Your task to perform on an android device: Open Google Chrome and click the shortcut for Amazon.com Image 0: 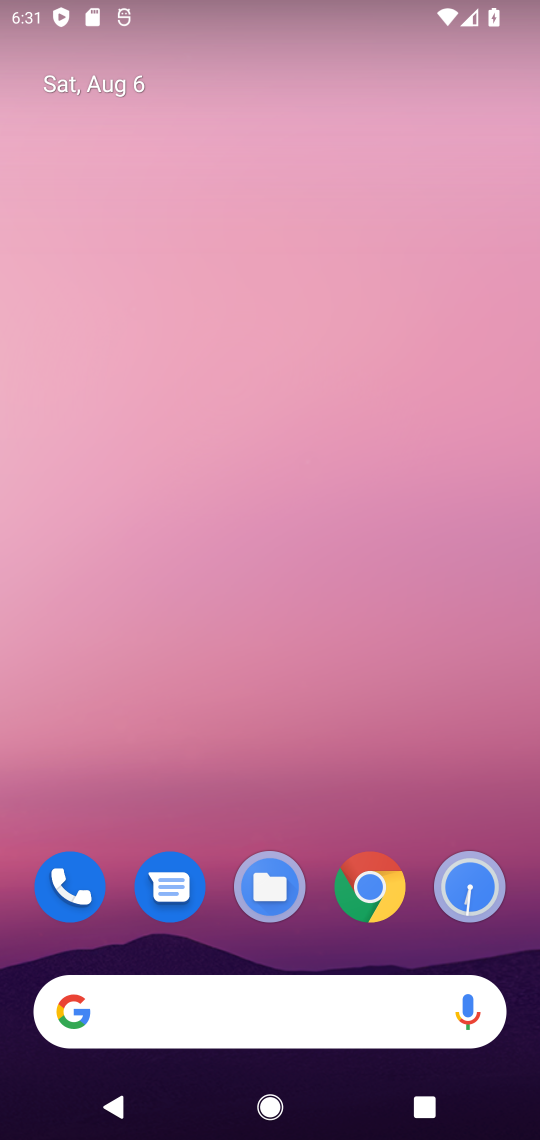
Step 0: drag from (312, 879) to (392, 402)
Your task to perform on an android device: Open Google Chrome and click the shortcut for Amazon.com Image 1: 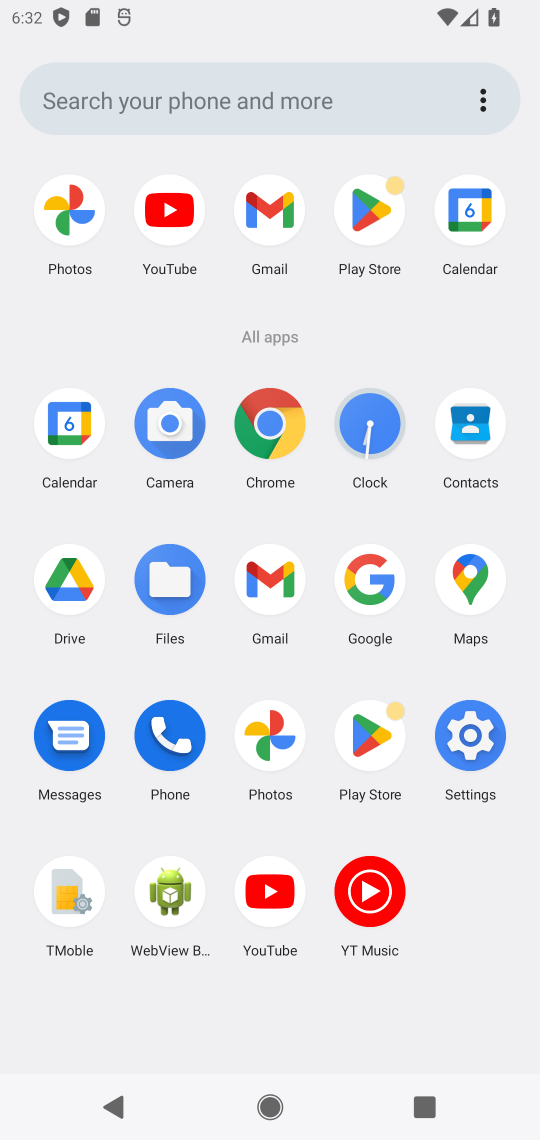
Step 1: click (266, 428)
Your task to perform on an android device: Open Google Chrome and click the shortcut for Amazon.com Image 2: 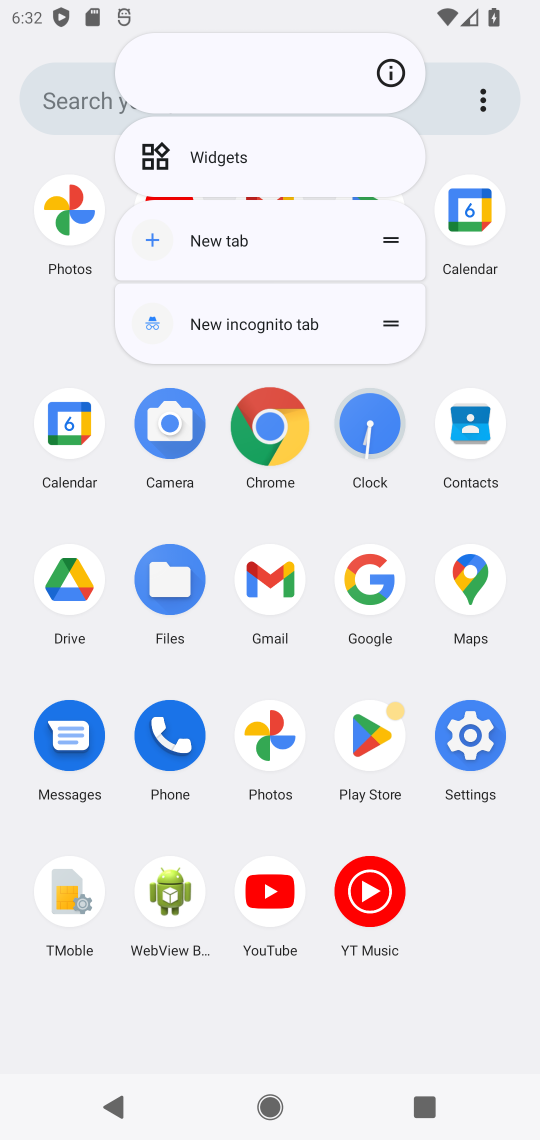
Step 2: click (272, 439)
Your task to perform on an android device: Open Google Chrome and click the shortcut for Amazon.com Image 3: 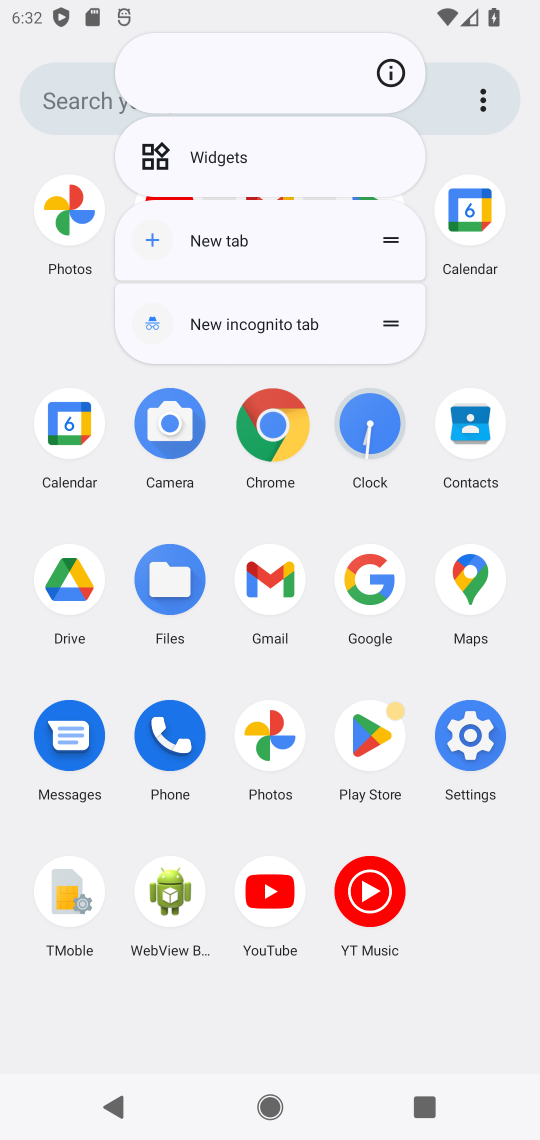
Step 3: click (264, 438)
Your task to perform on an android device: Open Google Chrome and click the shortcut for Amazon.com Image 4: 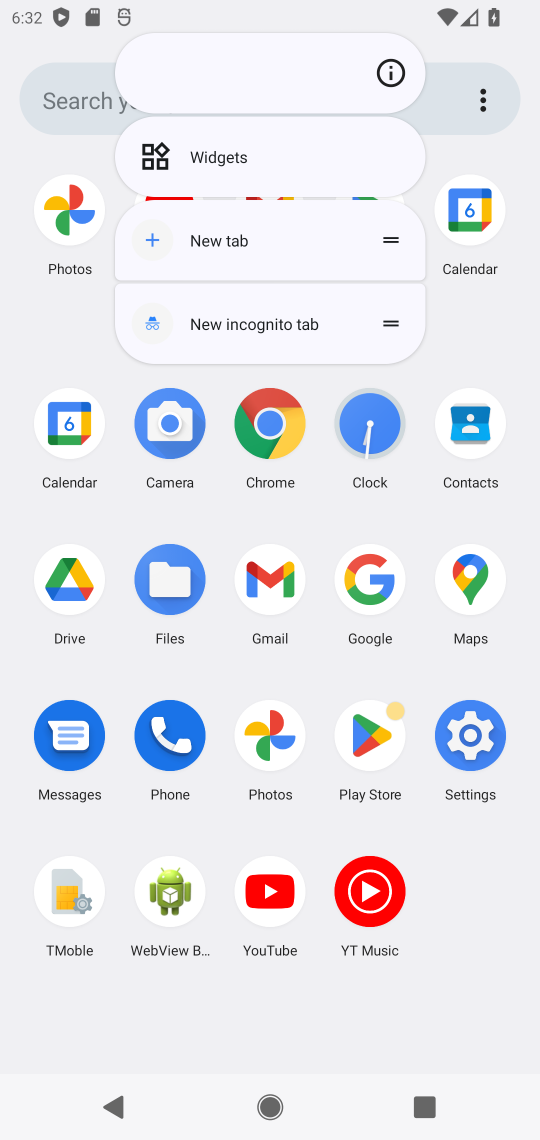
Step 4: click (265, 438)
Your task to perform on an android device: Open Google Chrome and click the shortcut for Amazon.com Image 5: 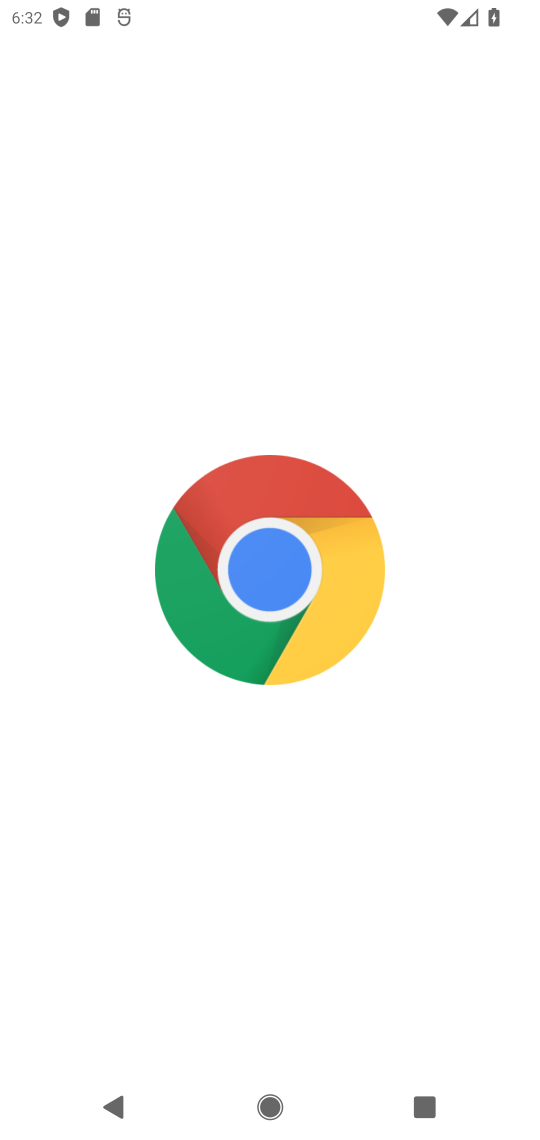
Step 5: click (279, 441)
Your task to perform on an android device: Open Google Chrome and click the shortcut for Amazon.com Image 6: 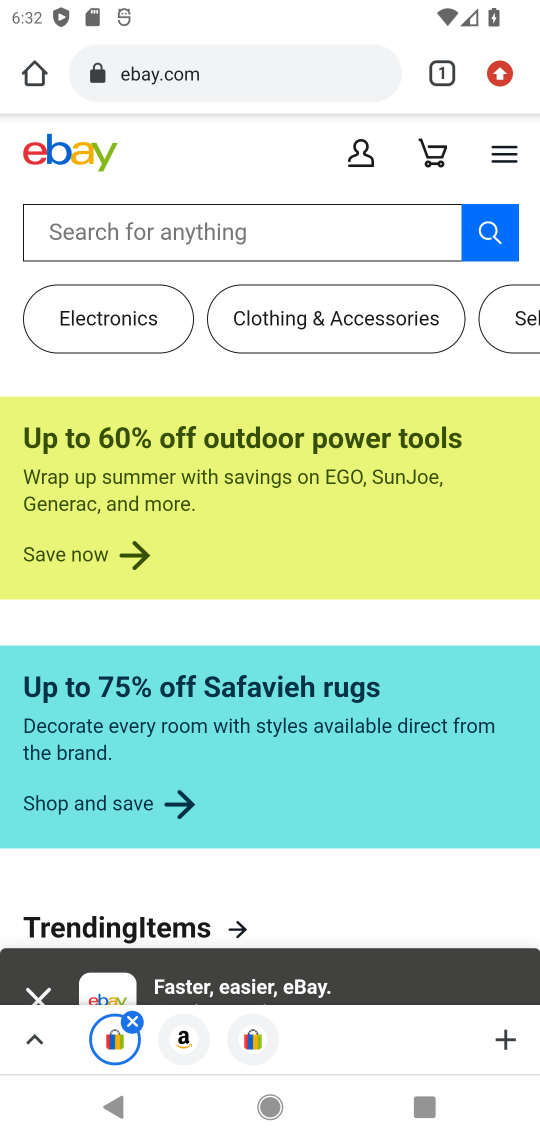
Step 6: drag from (488, 64) to (509, 809)
Your task to perform on an android device: Open Google Chrome and click the shortcut for Amazon.com Image 7: 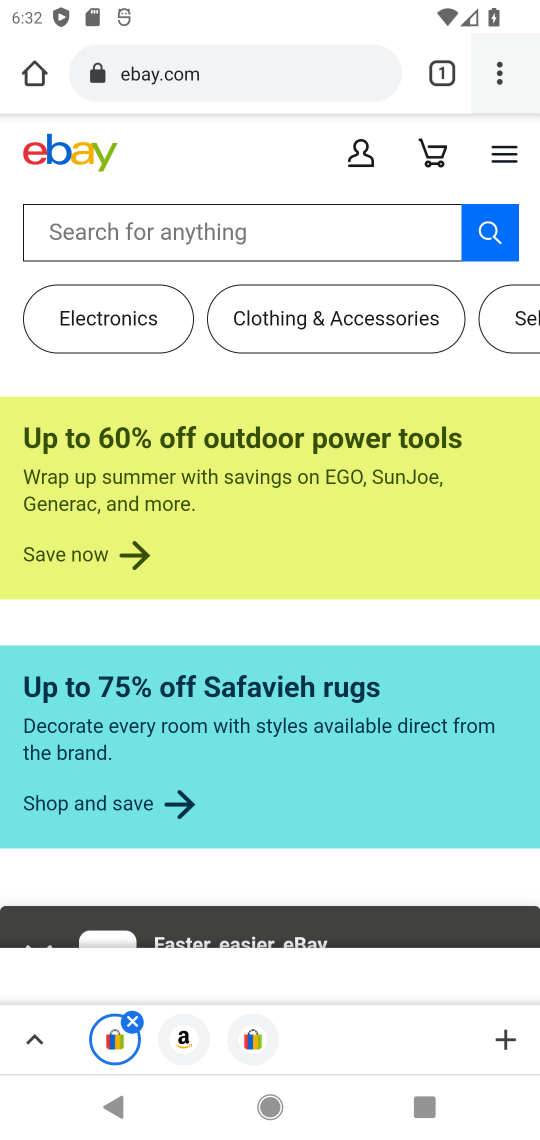
Step 7: drag from (500, 74) to (427, 637)
Your task to perform on an android device: Open Google Chrome and click the shortcut for Amazon.com Image 8: 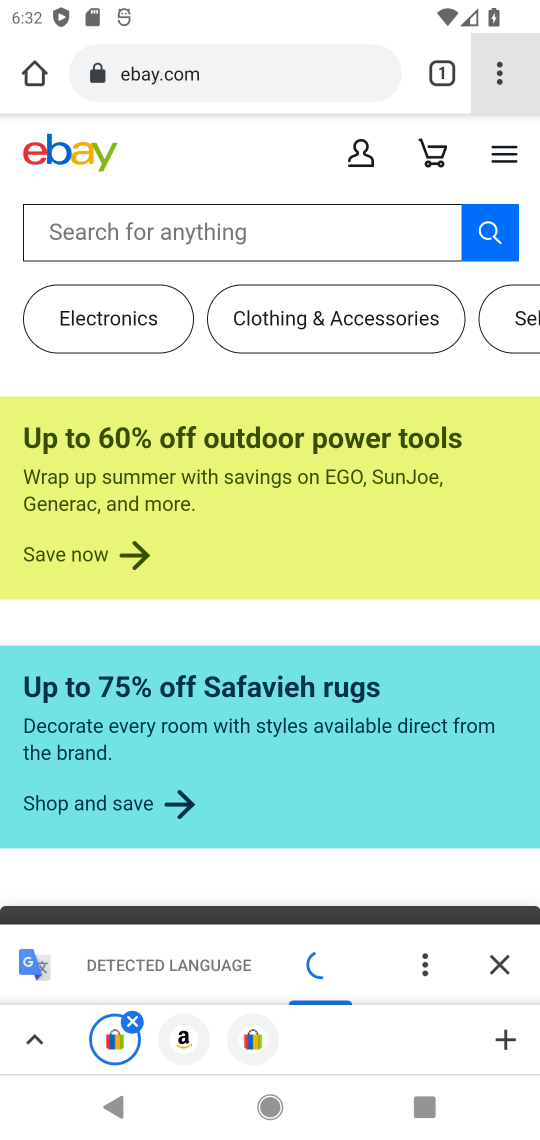
Step 8: click (494, 68)
Your task to perform on an android device: Open Google Chrome and click the shortcut for Amazon.com Image 9: 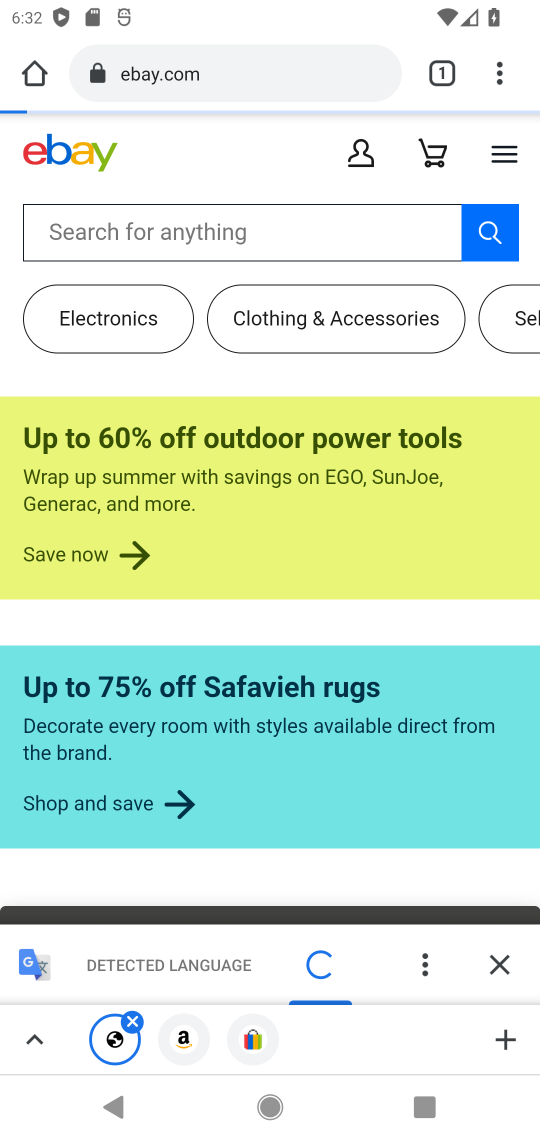
Step 9: click (503, 77)
Your task to perform on an android device: Open Google Chrome and click the shortcut for Amazon.com Image 10: 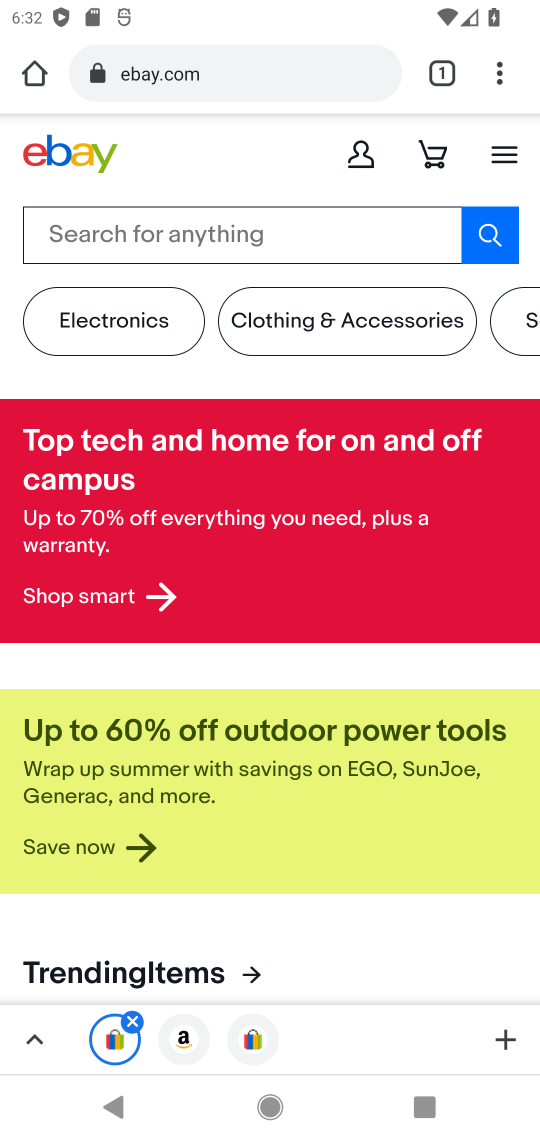
Step 10: drag from (483, 68) to (271, 122)
Your task to perform on an android device: Open Google Chrome and click the shortcut for Amazon.com Image 11: 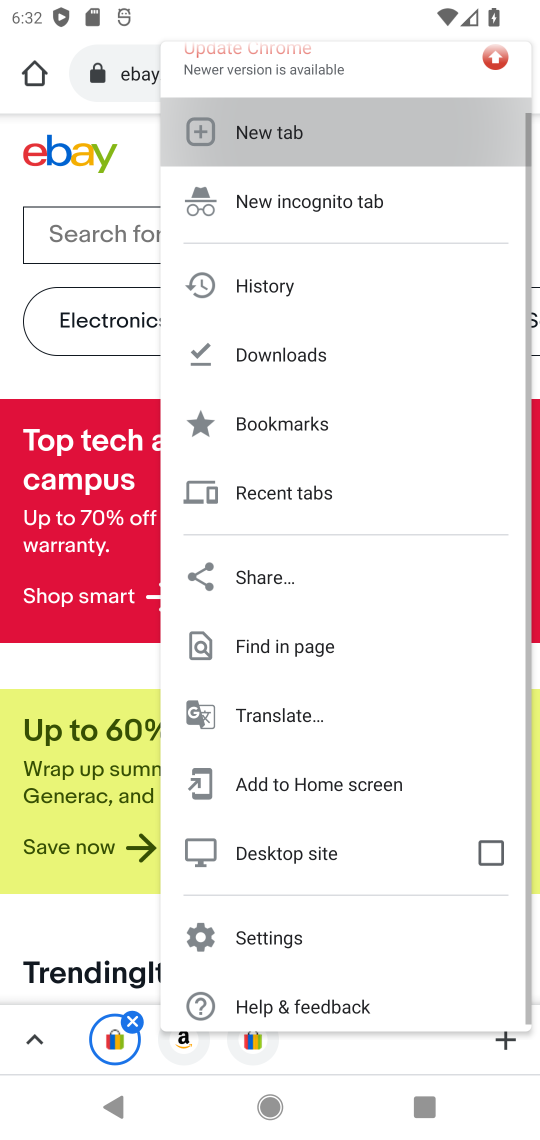
Step 11: click (271, 122)
Your task to perform on an android device: Open Google Chrome and click the shortcut for Amazon.com Image 12: 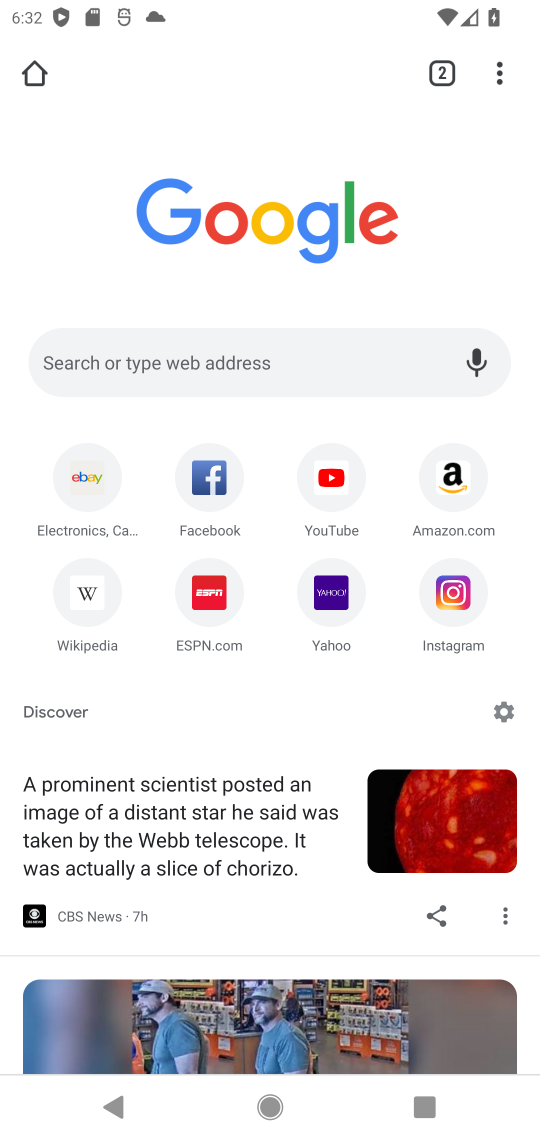
Step 12: click (450, 476)
Your task to perform on an android device: Open Google Chrome and click the shortcut for Amazon.com Image 13: 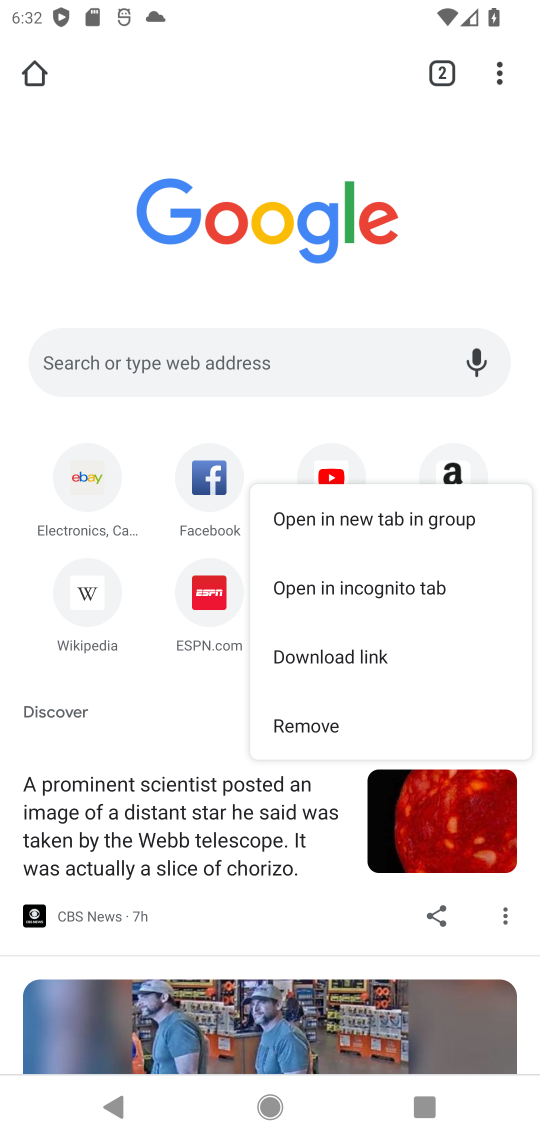
Step 13: click (450, 476)
Your task to perform on an android device: Open Google Chrome and click the shortcut for Amazon.com Image 14: 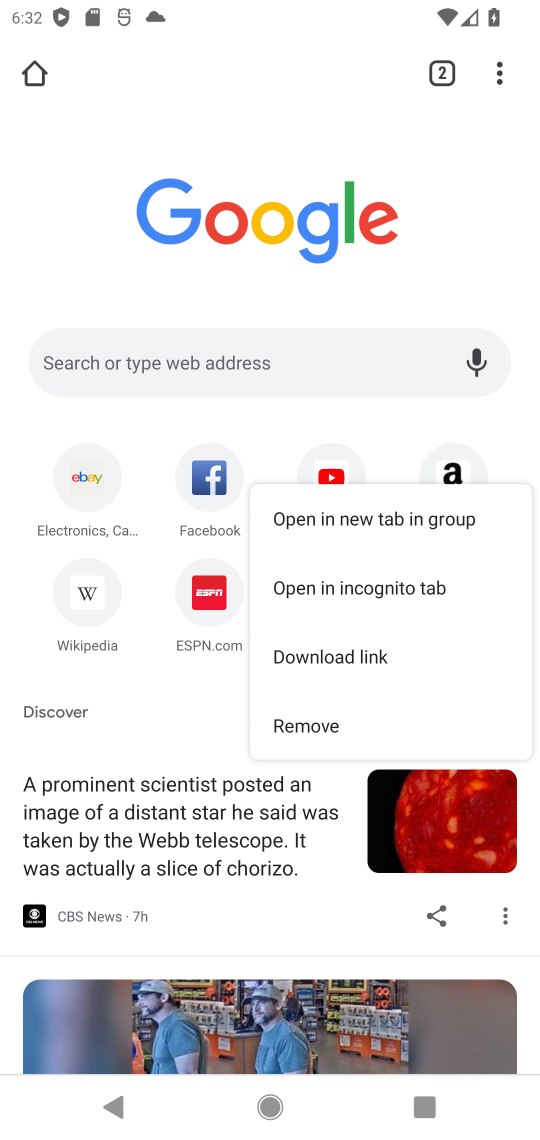
Step 14: click (452, 480)
Your task to perform on an android device: Open Google Chrome and click the shortcut for Amazon.com Image 15: 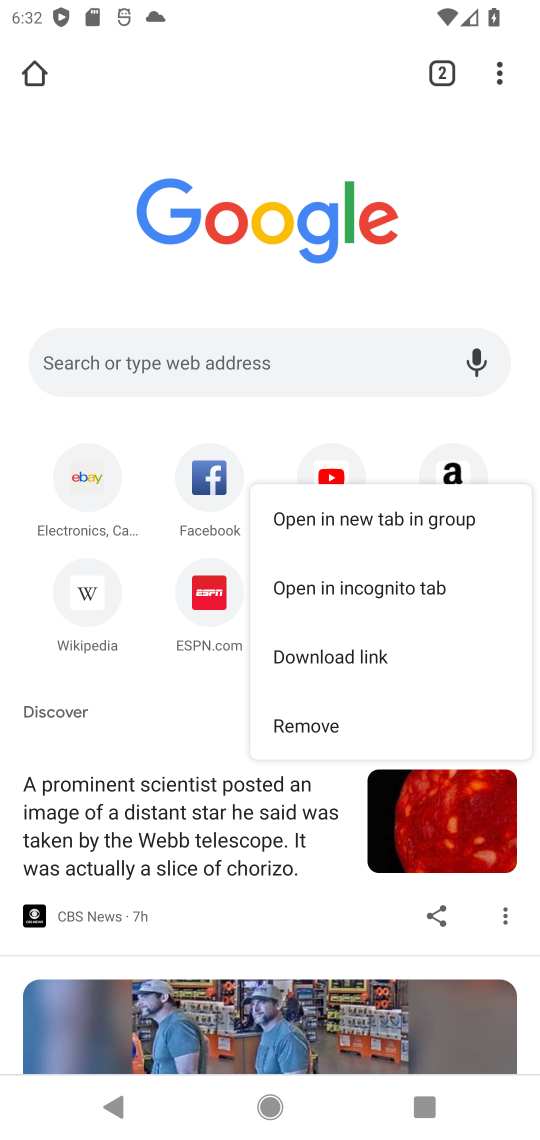
Step 15: task complete